Your task to perform on an android device: turn on wifi Image 0: 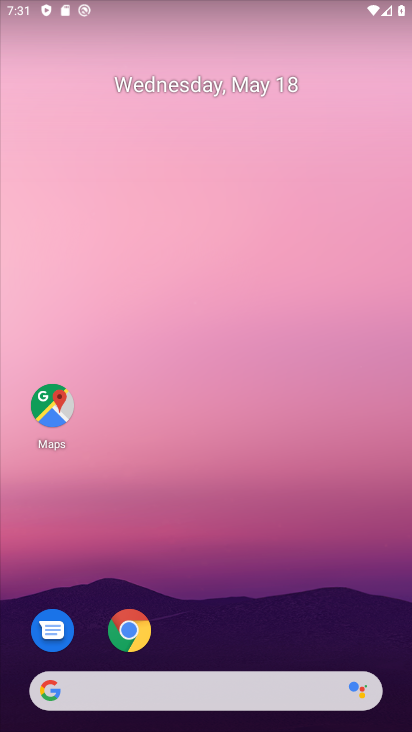
Step 0: drag from (321, 566) to (240, 159)
Your task to perform on an android device: turn on wifi Image 1: 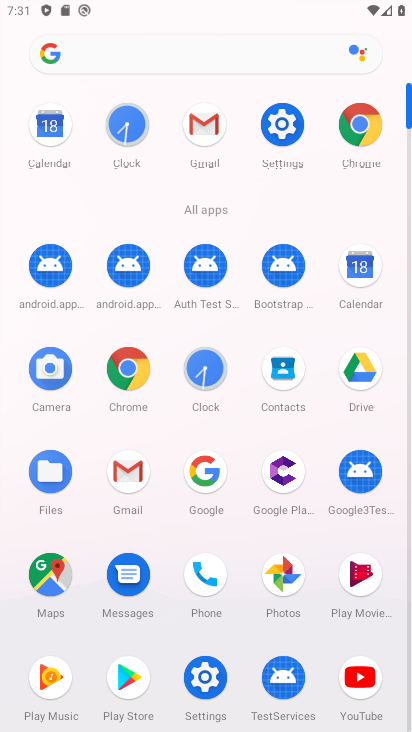
Step 1: click (277, 126)
Your task to perform on an android device: turn on wifi Image 2: 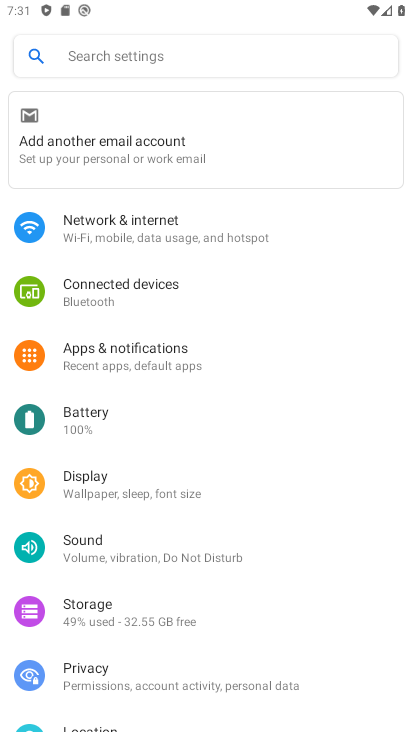
Step 2: click (124, 223)
Your task to perform on an android device: turn on wifi Image 3: 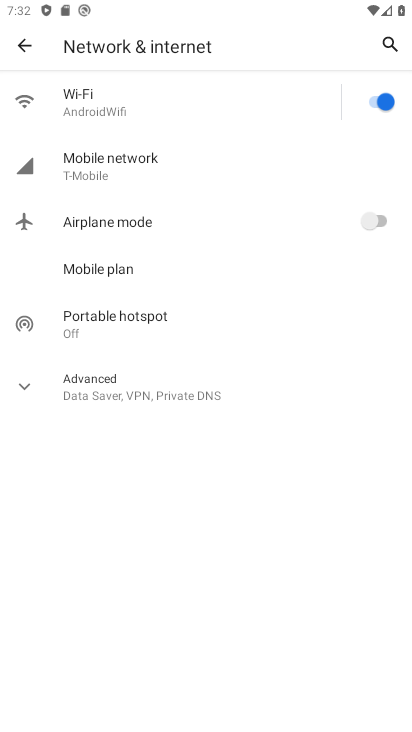
Step 3: task complete